Your task to perform on an android device: Open ESPN.com Image 0: 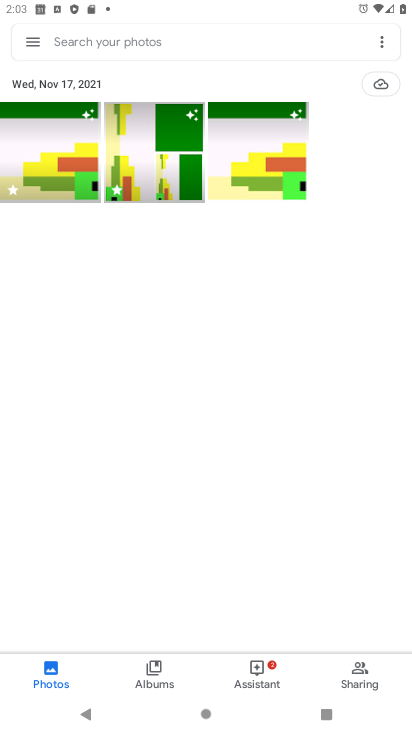
Step 0: press home button
Your task to perform on an android device: Open ESPN.com Image 1: 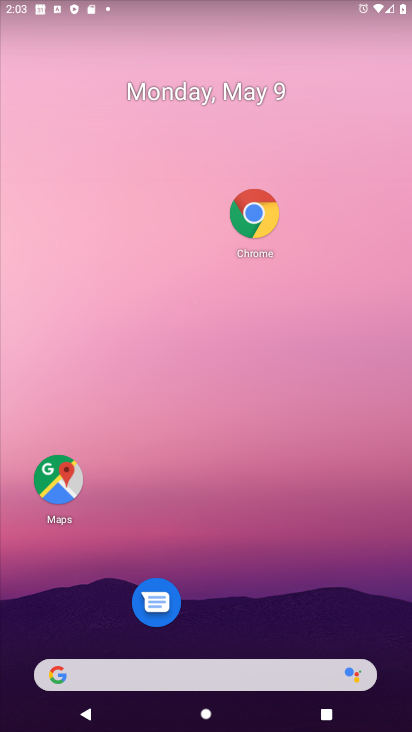
Step 1: click (262, 209)
Your task to perform on an android device: Open ESPN.com Image 2: 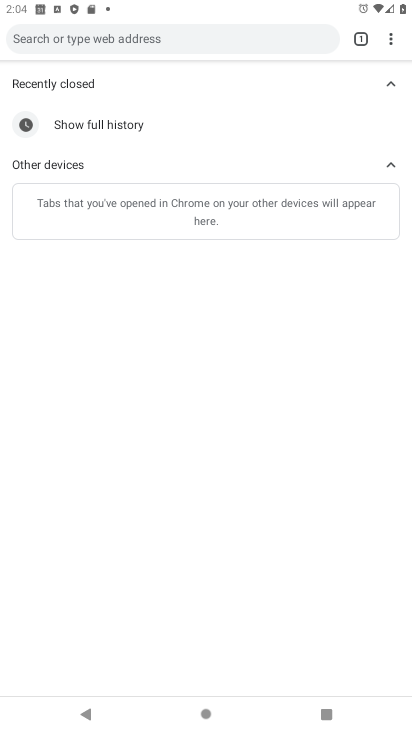
Step 2: click (186, 32)
Your task to perform on an android device: Open ESPN.com Image 3: 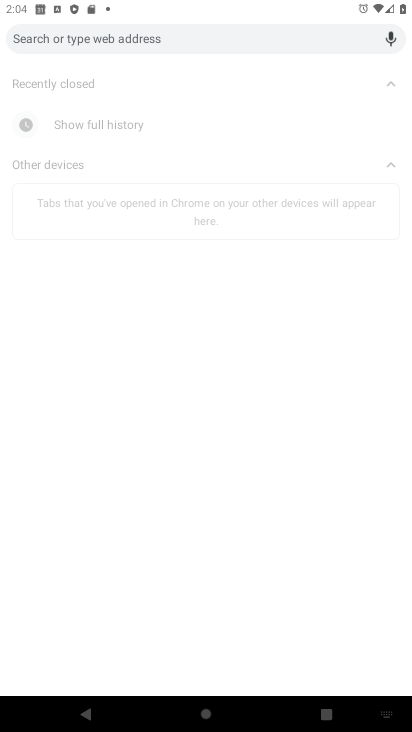
Step 3: type "espn.com"
Your task to perform on an android device: Open ESPN.com Image 4: 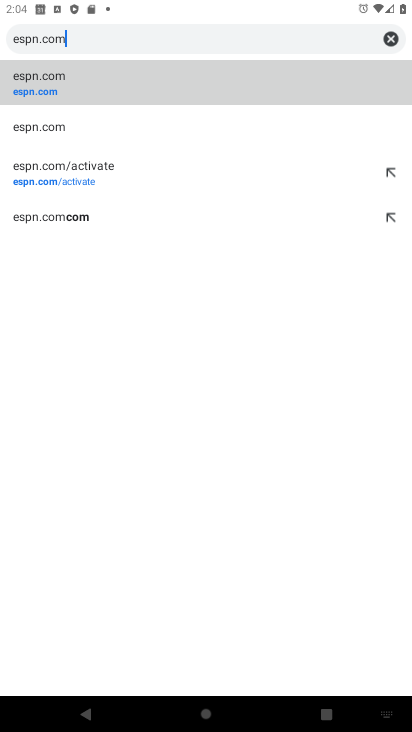
Step 4: click (76, 169)
Your task to perform on an android device: Open ESPN.com Image 5: 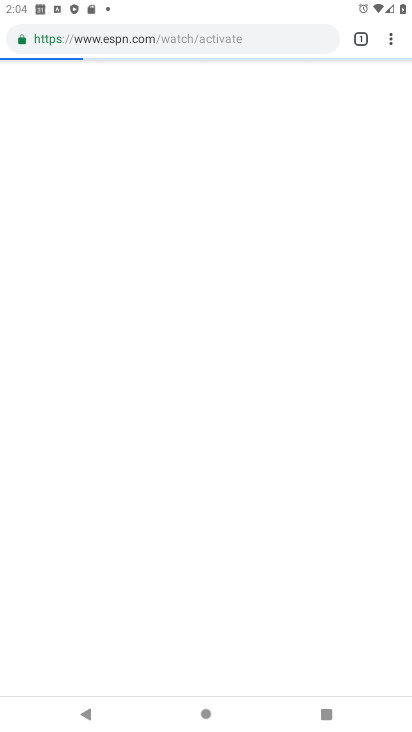
Step 5: task complete